Your task to perform on an android device: find snoozed emails in the gmail app Image 0: 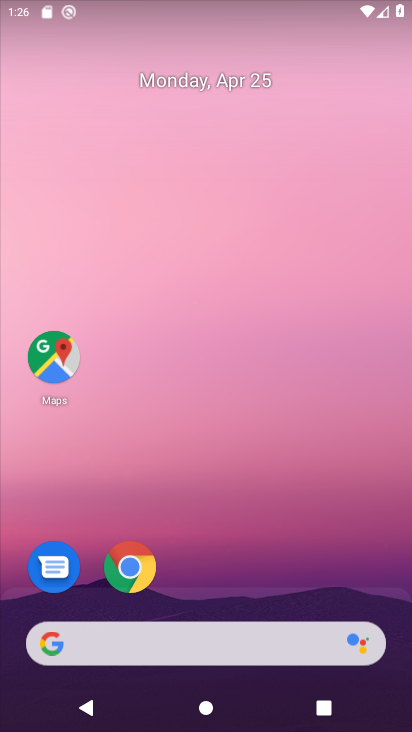
Step 0: drag from (345, 560) to (294, 119)
Your task to perform on an android device: find snoozed emails in the gmail app Image 1: 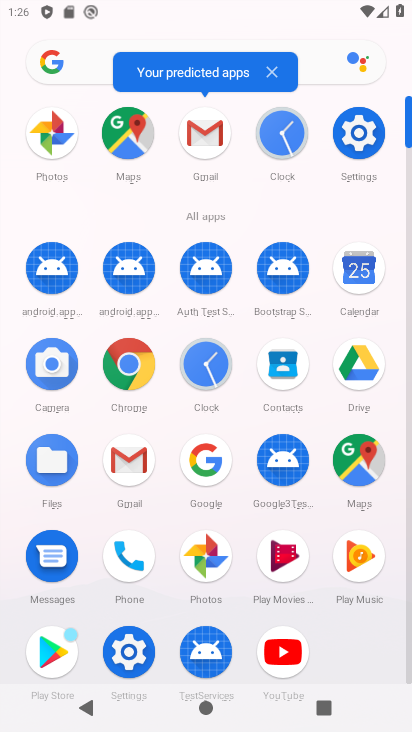
Step 1: click (406, 663)
Your task to perform on an android device: find snoozed emails in the gmail app Image 2: 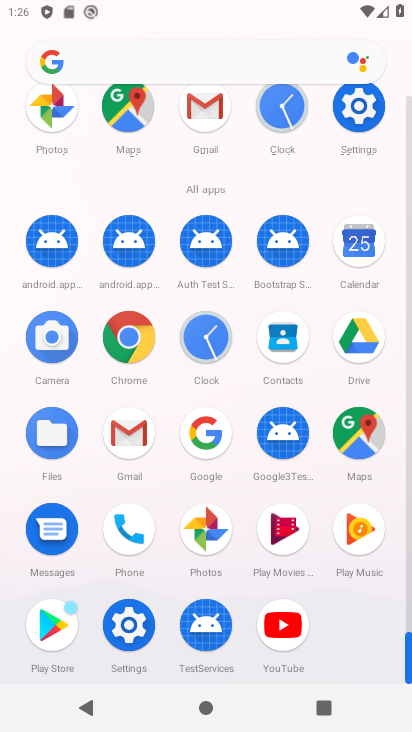
Step 2: click (128, 428)
Your task to perform on an android device: find snoozed emails in the gmail app Image 3: 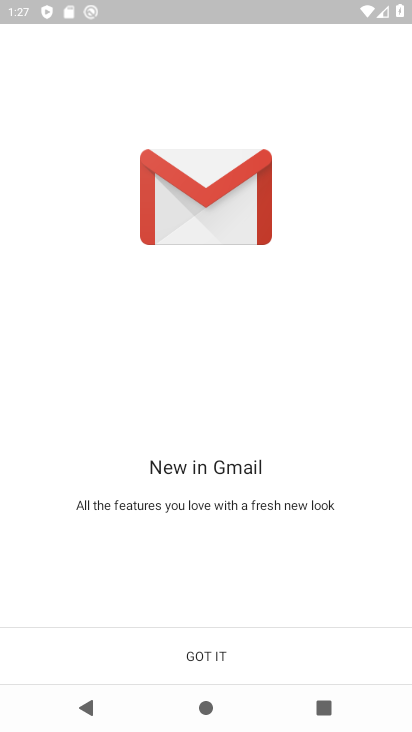
Step 3: click (204, 655)
Your task to perform on an android device: find snoozed emails in the gmail app Image 4: 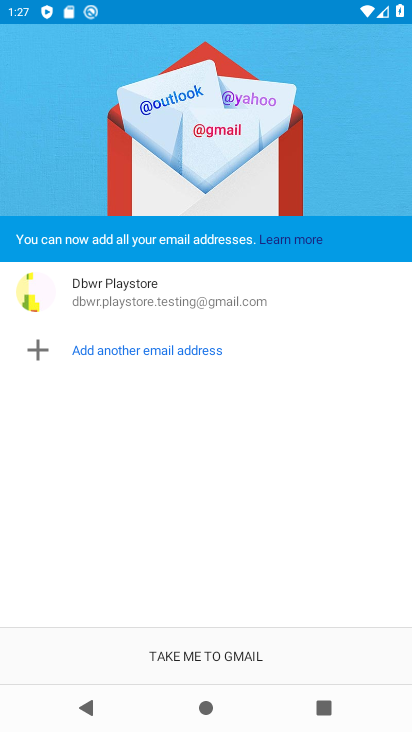
Step 4: click (212, 648)
Your task to perform on an android device: find snoozed emails in the gmail app Image 5: 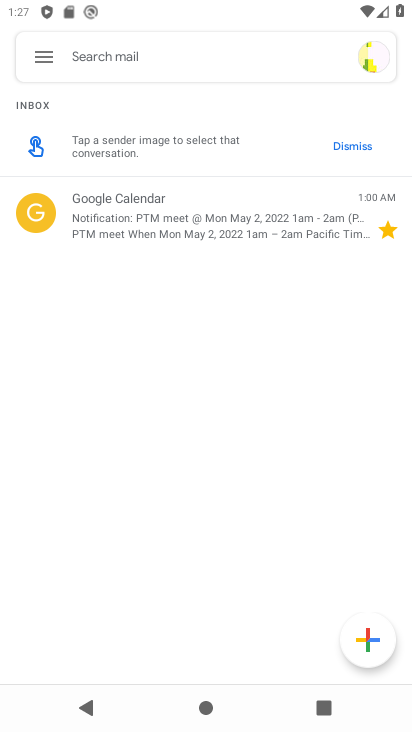
Step 5: click (28, 50)
Your task to perform on an android device: find snoozed emails in the gmail app Image 6: 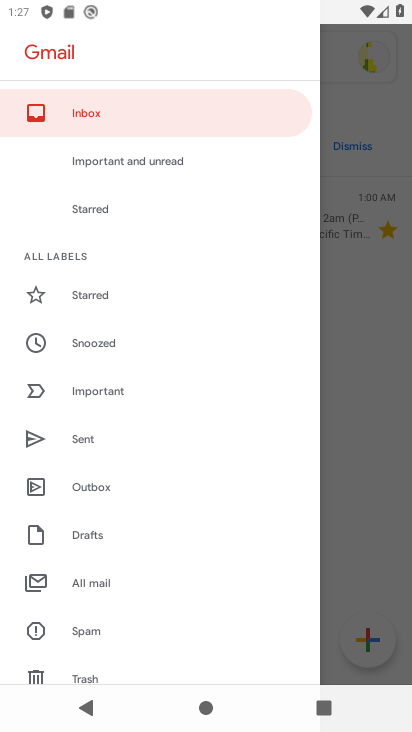
Step 6: click (85, 339)
Your task to perform on an android device: find snoozed emails in the gmail app Image 7: 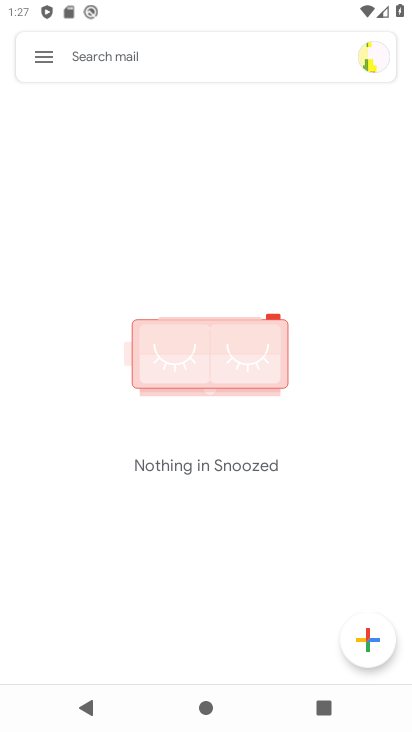
Step 7: task complete